Your task to perform on an android device: Go to internet settings Image 0: 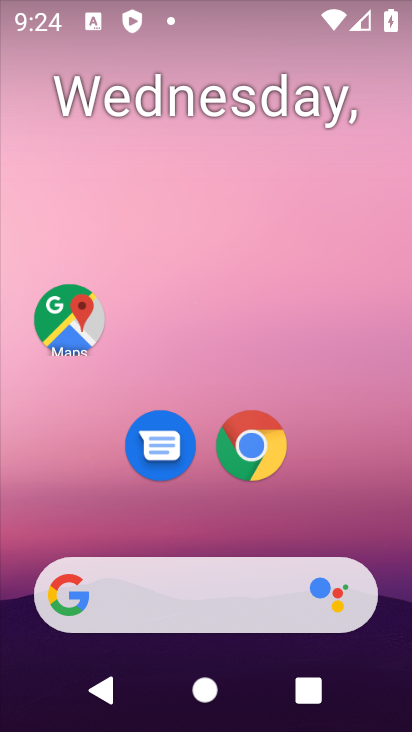
Step 0: drag from (356, 514) to (322, 55)
Your task to perform on an android device: Go to internet settings Image 1: 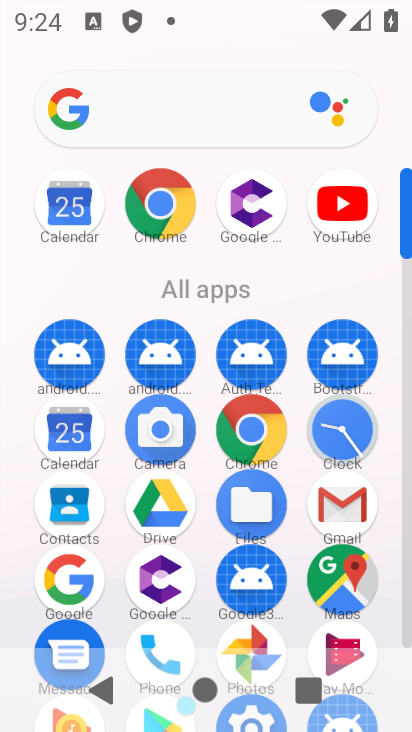
Step 1: drag from (373, 550) to (410, 139)
Your task to perform on an android device: Go to internet settings Image 2: 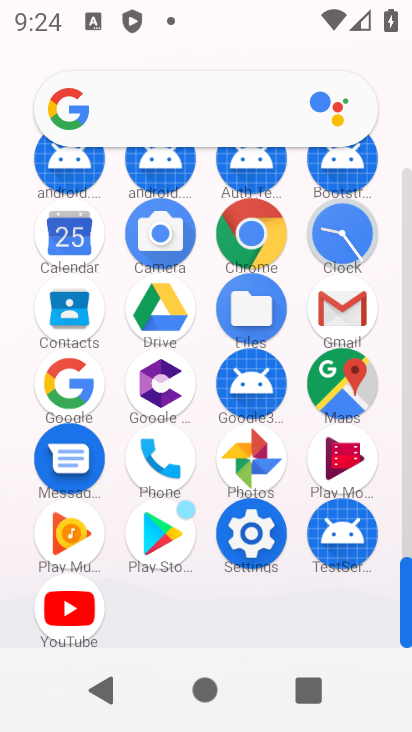
Step 2: click (245, 525)
Your task to perform on an android device: Go to internet settings Image 3: 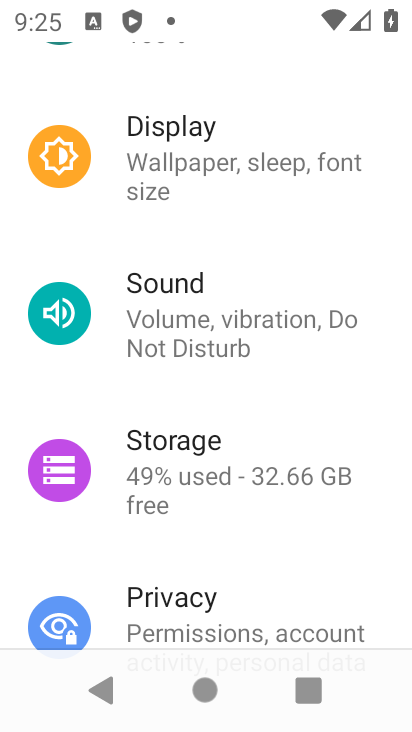
Step 3: drag from (90, 326) to (172, 627)
Your task to perform on an android device: Go to internet settings Image 4: 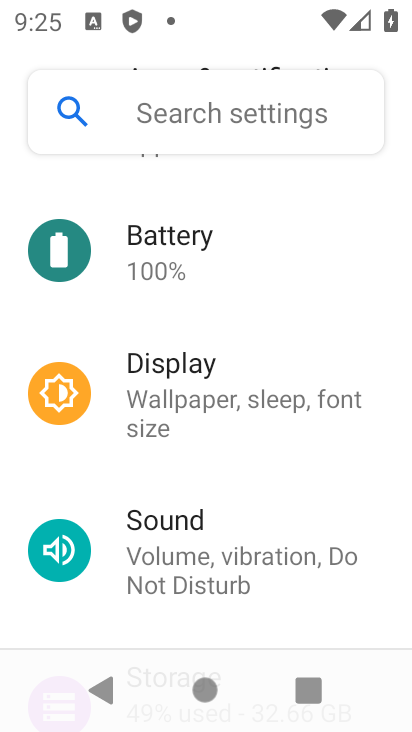
Step 4: drag from (254, 320) to (259, 637)
Your task to perform on an android device: Go to internet settings Image 5: 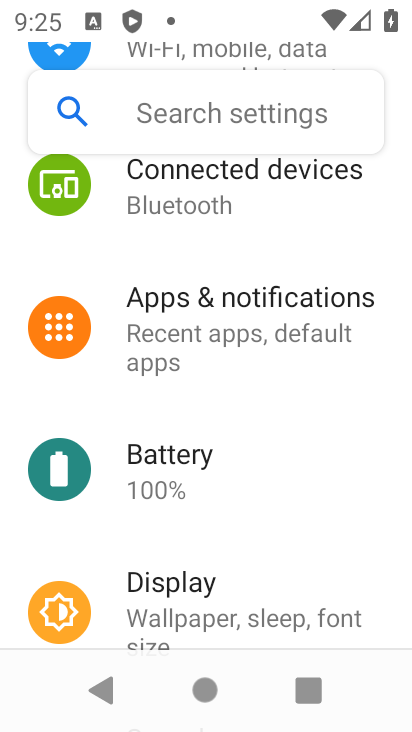
Step 5: drag from (333, 233) to (245, 567)
Your task to perform on an android device: Go to internet settings Image 6: 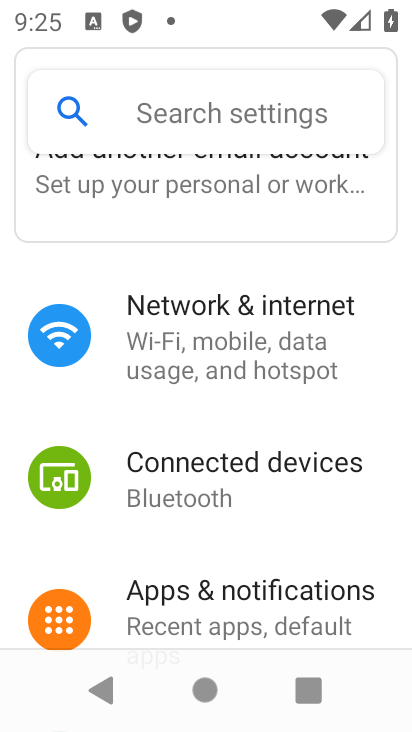
Step 6: click (244, 342)
Your task to perform on an android device: Go to internet settings Image 7: 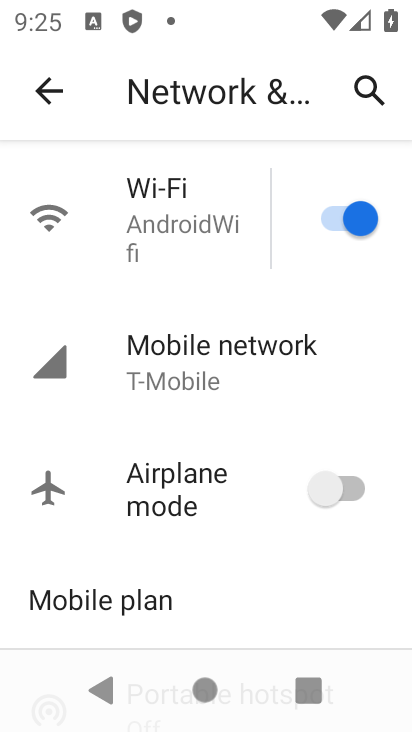
Step 7: task complete